Your task to perform on an android device: add a label to a message in the gmail app Image 0: 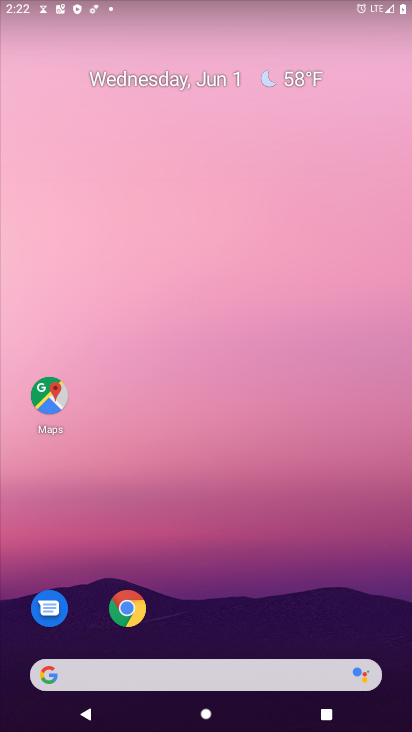
Step 0: click (231, 609)
Your task to perform on an android device: add a label to a message in the gmail app Image 1: 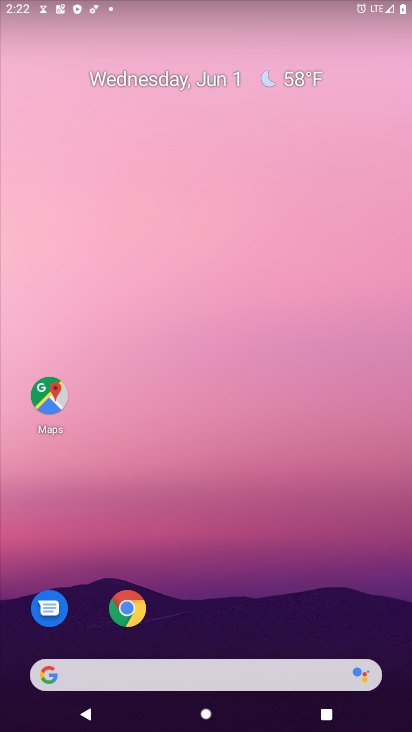
Step 1: drag from (241, 639) to (217, 225)
Your task to perform on an android device: add a label to a message in the gmail app Image 2: 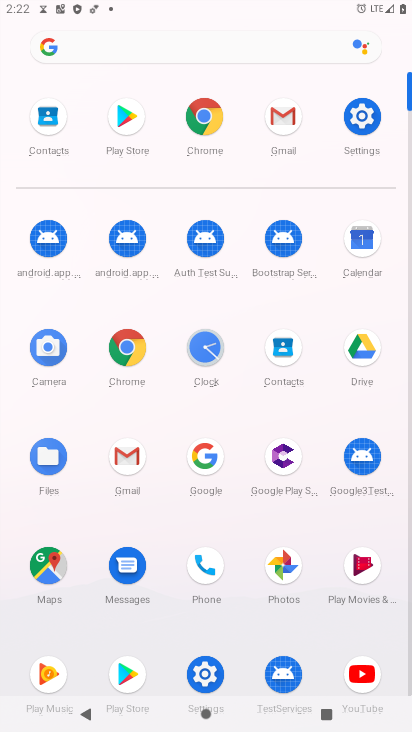
Step 2: click (284, 113)
Your task to perform on an android device: add a label to a message in the gmail app Image 3: 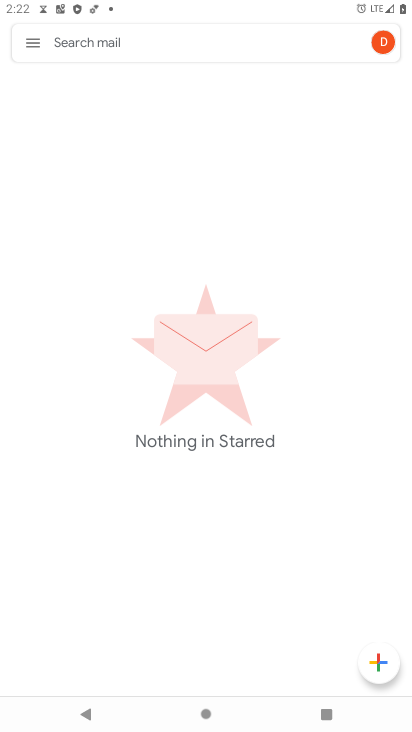
Step 3: click (40, 41)
Your task to perform on an android device: add a label to a message in the gmail app Image 4: 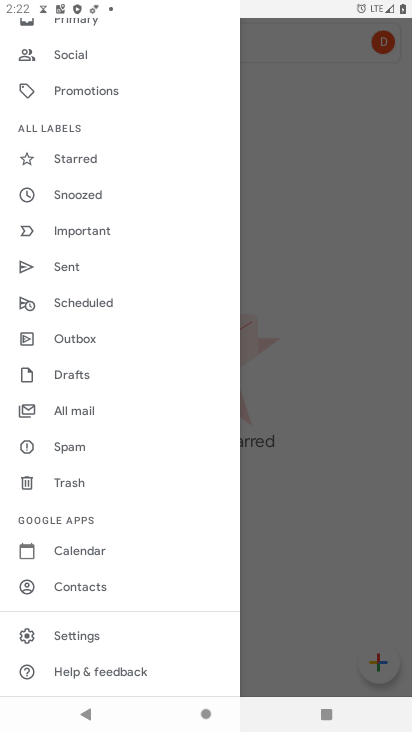
Step 4: click (108, 397)
Your task to perform on an android device: add a label to a message in the gmail app Image 5: 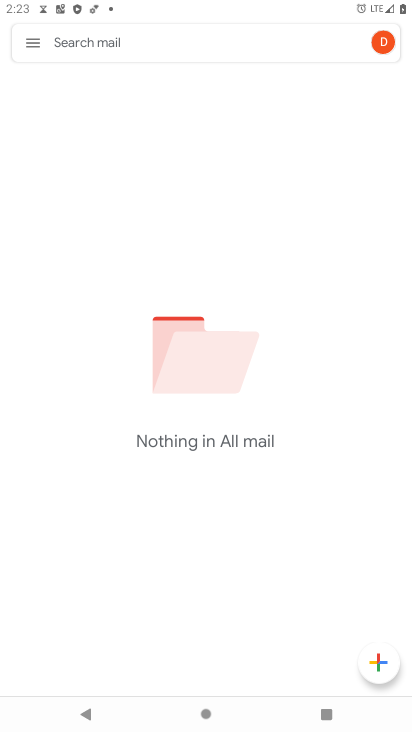
Step 5: click (17, 35)
Your task to perform on an android device: add a label to a message in the gmail app Image 6: 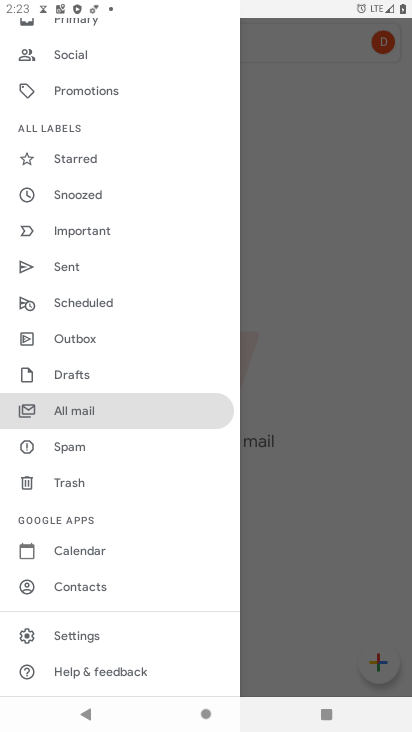
Step 6: task complete